Your task to perform on an android device: open chrome privacy settings Image 0: 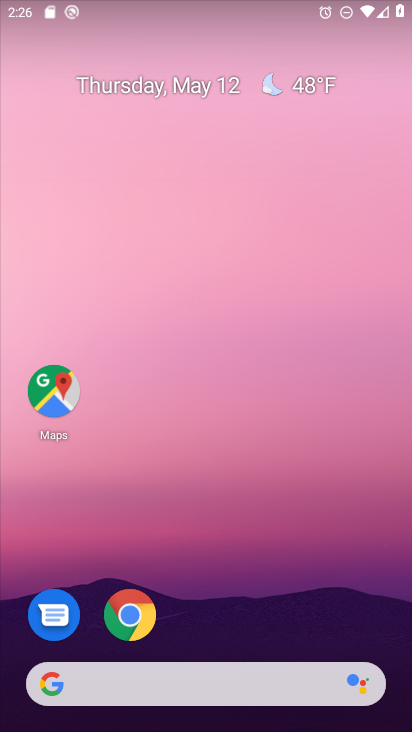
Step 0: drag from (214, 689) to (329, 58)
Your task to perform on an android device: open chrome privacy settings Image 1: 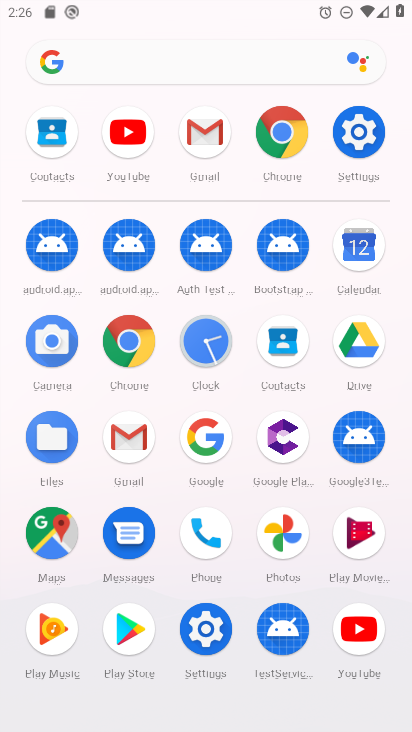
Step 1: click (373, 120)
Your task to perform on an android device: open chrome privacy settings Image 2: 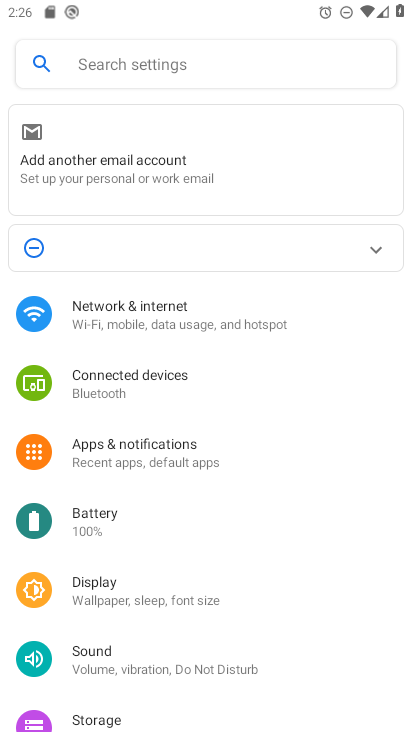
Step 2: press home button
Your task to perform on an android device: open chrome privacy settings Image 3: 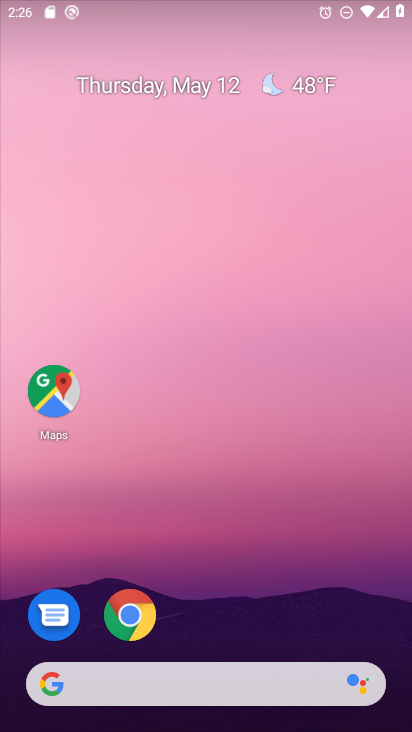
Step 3: drag from (275, 638) to (305, 26)
Your task to perform on an android device: open chrome privacy settings Image 4: 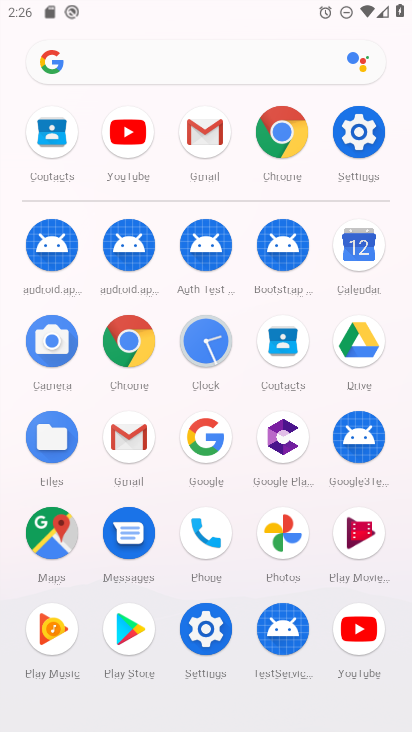
Step 4: click (123, 333)
Your task to perform on an android device: open chrome privacy settings Image 5: 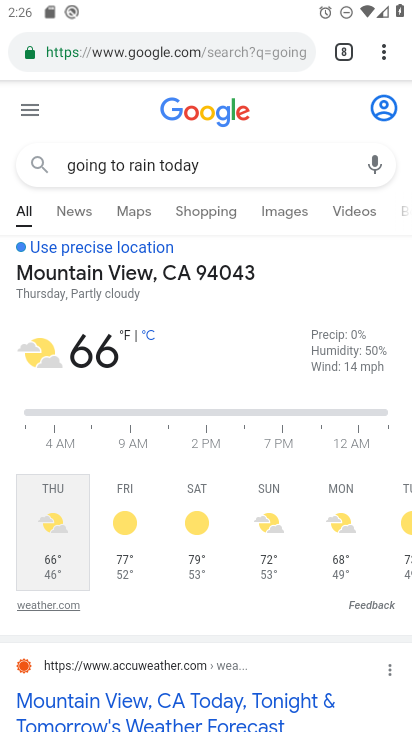
Step 5: drag from (377, 54) to (198, 590)
Your task to perform on an android device: open chrome privacy settings Image 6: 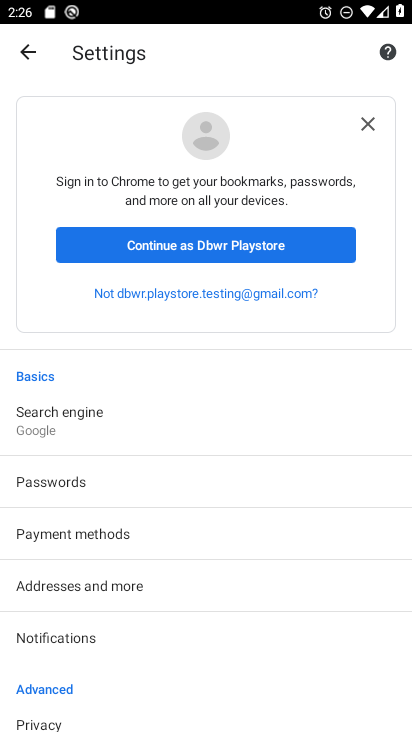
Step 6: drag from (263, 660) to (304, 148)
Your task to perform on an android device: open chrome privacy settings Image 7: 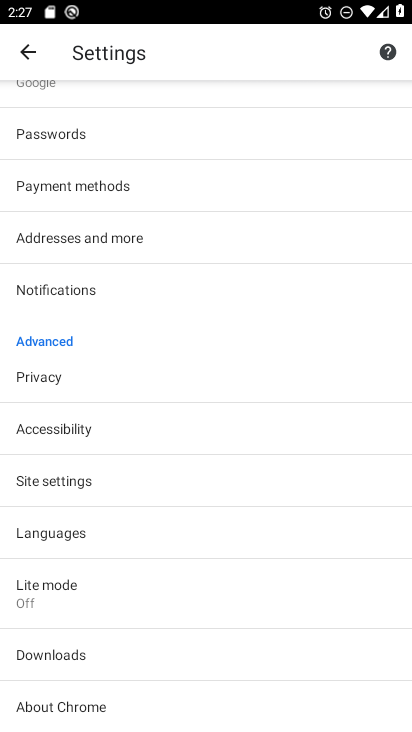
Step 7: click (182, 491)
Your task to perform on an android device: open chrome privacy settings Image 8: 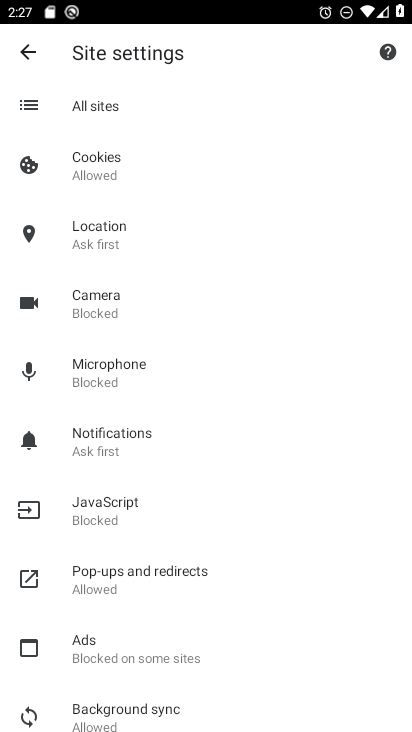
Step 8: press back button
Your task to perform on an android device: open chrome privacy settings Image 9: 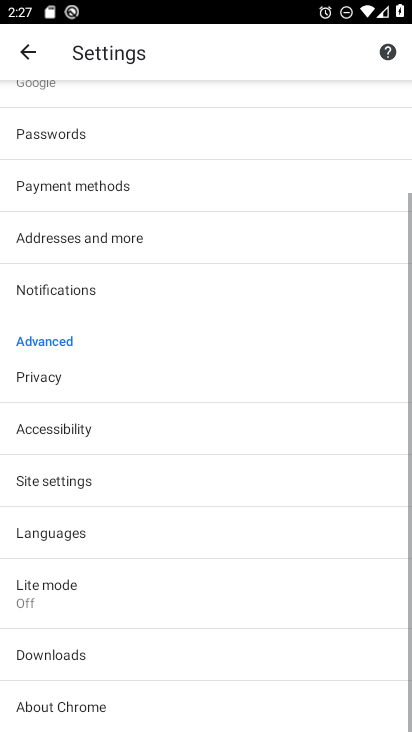
Step 9: click (155, 388)
Your task to perform on an android device: open chrome privacy settings Image 10: 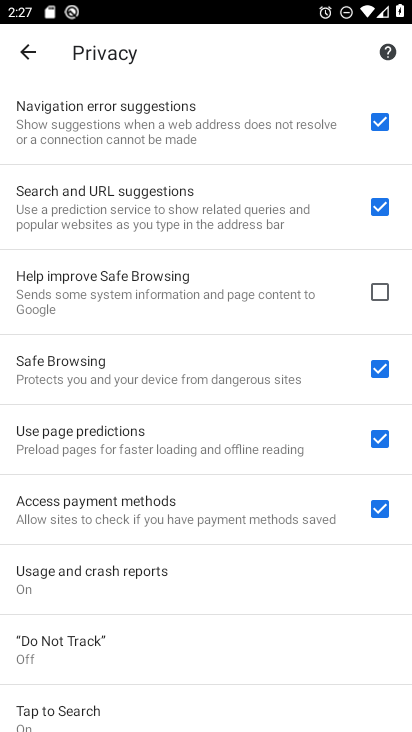
Step 10: drag from (270, 700) to (278, 112)
Your task to perform on an android device: open chrome privacy settings Image 11: 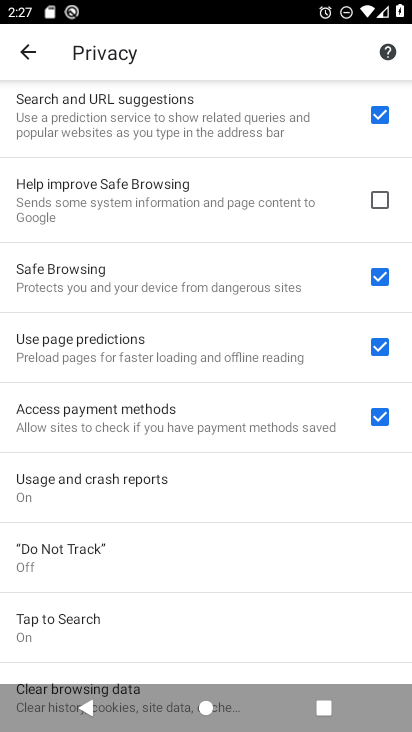
Step 11: click (175, 677)
Your task to perform on an android device: open chrome privacy settings Image 12: 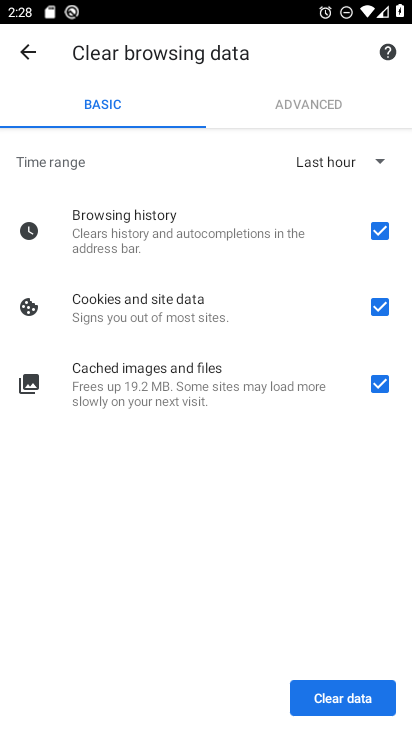
Step 12: task complete